Your task to perform on an android device: Open network settings Image 0: 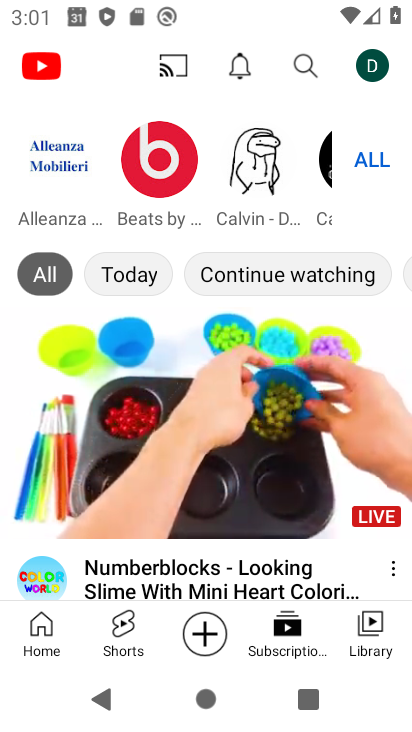
Step 0: press home button
Your task to perform on an android device: Open network settings Image 1: 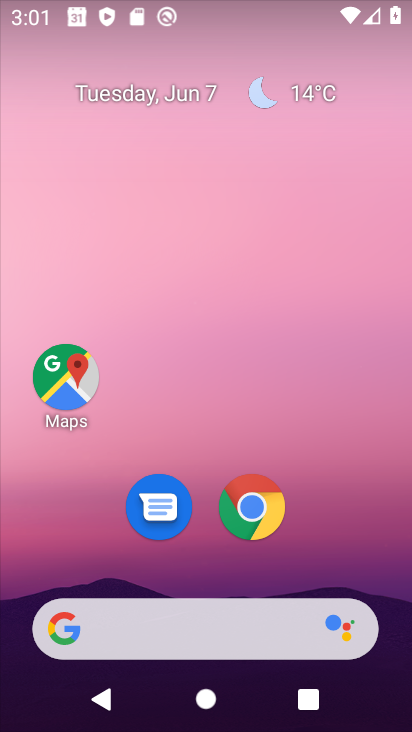
Step 1: drag from (347, 523) to (333, 108)
Your task to perform on an android device: Open network settings Image 2: 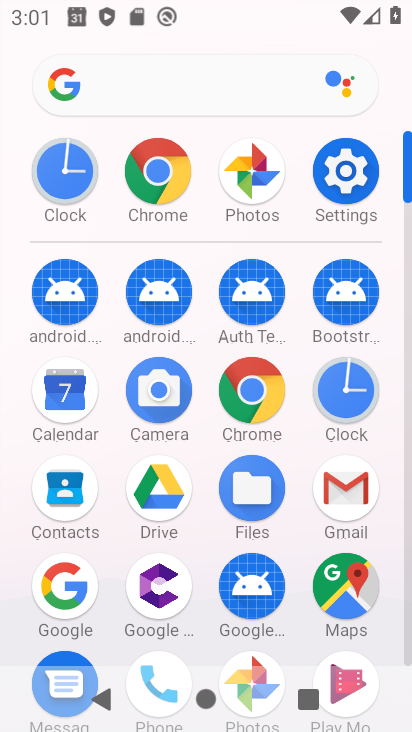
Step 2: click (348, 173)
Your task to perform on an android device: Open network settings Image 3: 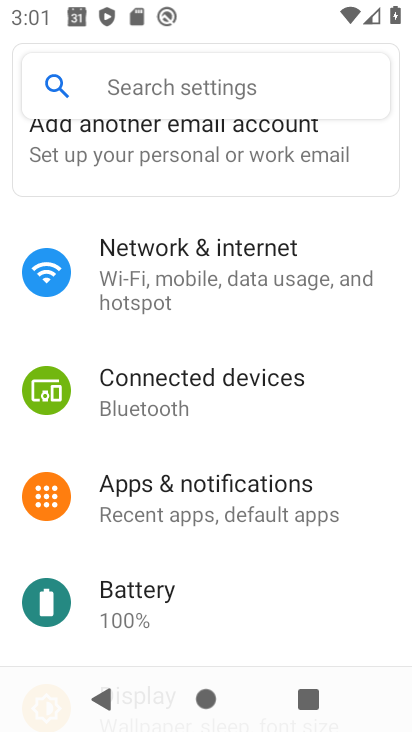
Step 3: click (222, 287)
Your task to perform on an android device: Open network settings Image 4: 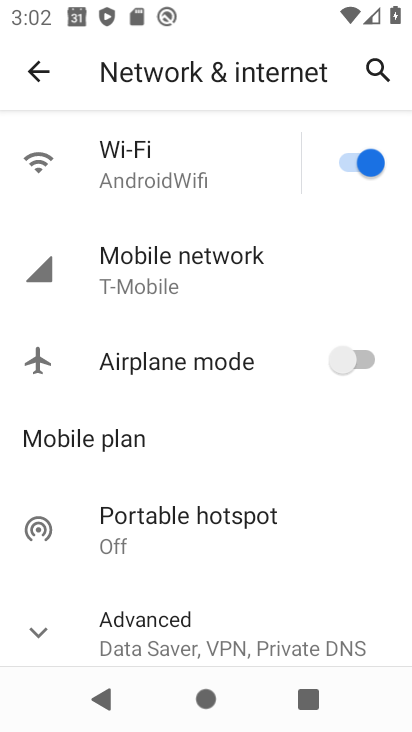
Step 4: task complete